Your task to perform on an android device: Go to network settings Image 0: 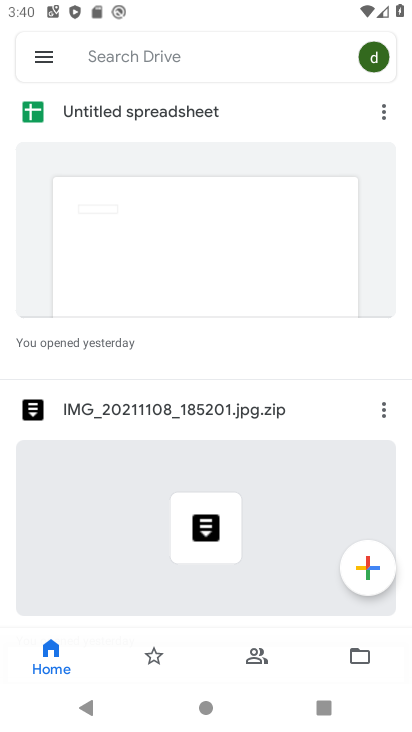
Step 0: press home button
Your task to perform on an android device: Go to network settings Image 1: 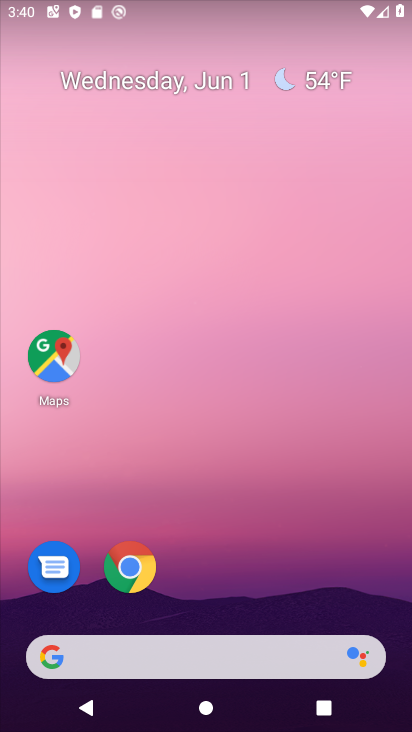
Step 1: drag from (235, 614) to (249, 291)
Your task to perform on an android device: Go to network settings Image 2: 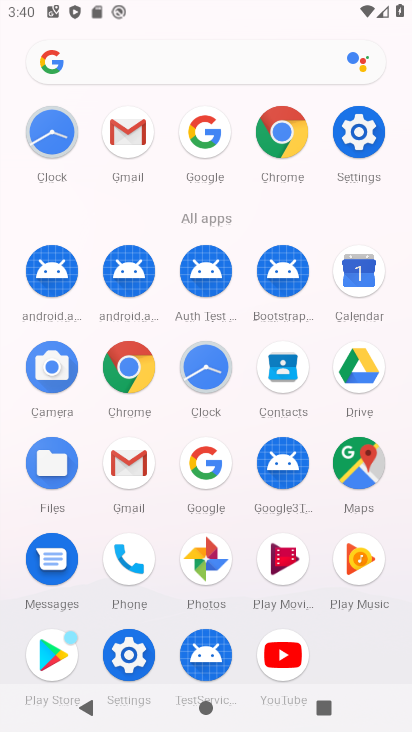
Step 2: drag from (281, 639) to (281, 215)
Your task to perform on an android device: Go to network settings Image 3: 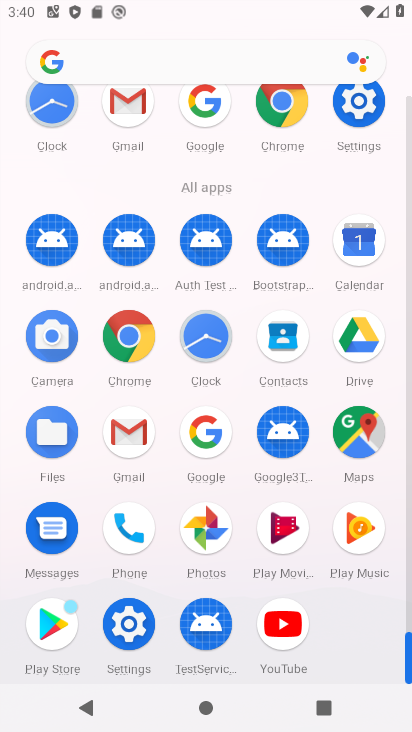
Step 3: click (366, 100)
Your task to perform on an android device: Go to network settings Image 4: 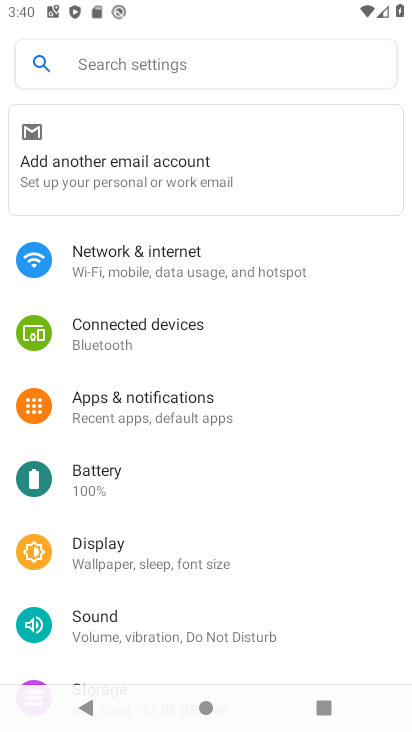
Step 4: click (186, 253)
Your task to perform on an android device: Go to network settings Image 5: 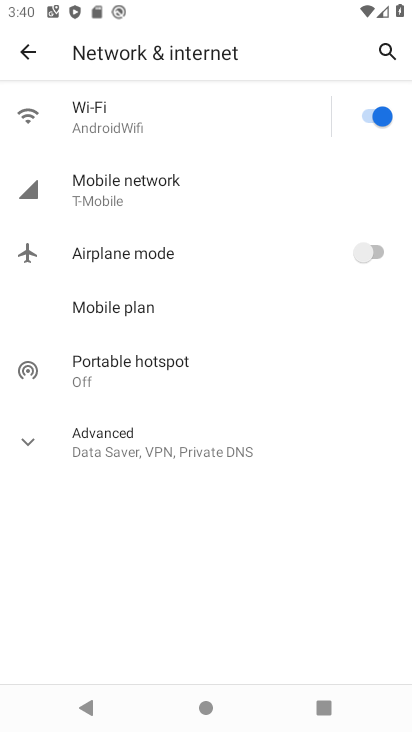
Step 5: task complete